Your task to perform on an android device: Go to Google Image 0: 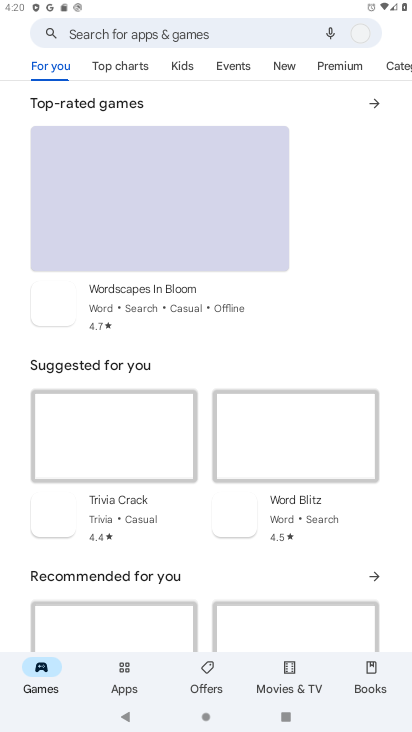
Step 0: press home button
Your task to perform on an android device: Go to Google Image 1: 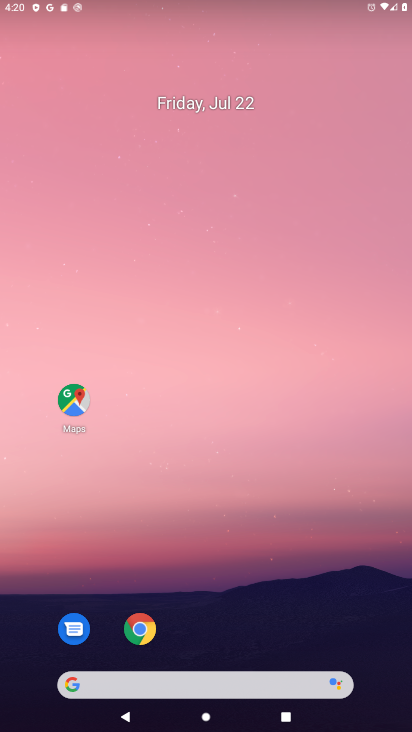
Step 1: drag from (206, 687) to (227, 142)
Your task to perform on an android device: Go to Google Image 2: 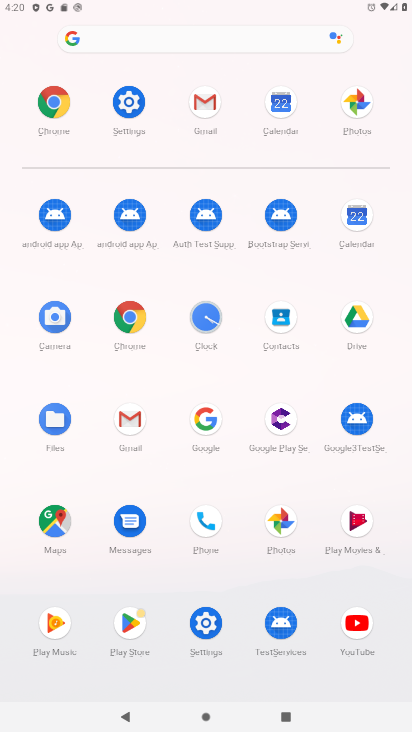
Step 2: drag from (220, 481) to (218, 328)
Your task to perform on an android device: Go to Google Image 3: 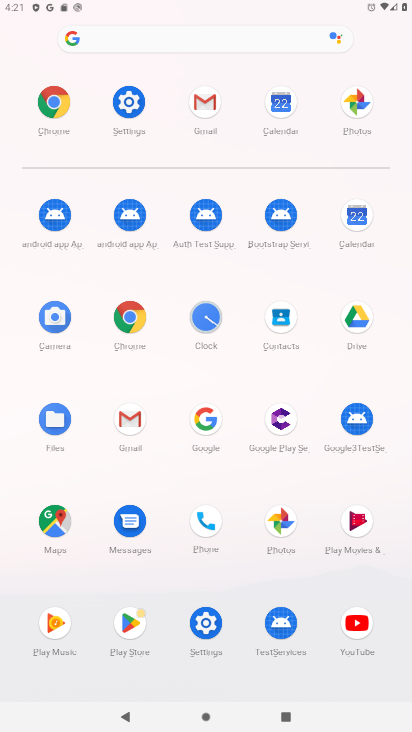
Step 3: click (207, 429)
Your task to perform on an android device: Go to Google Image 4: 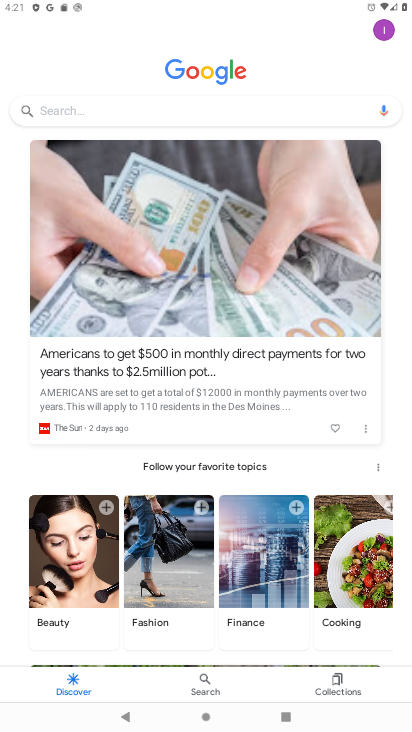
Step 4: task complete